Your task to perform on an android device: open sync settings in chrome Image 0: 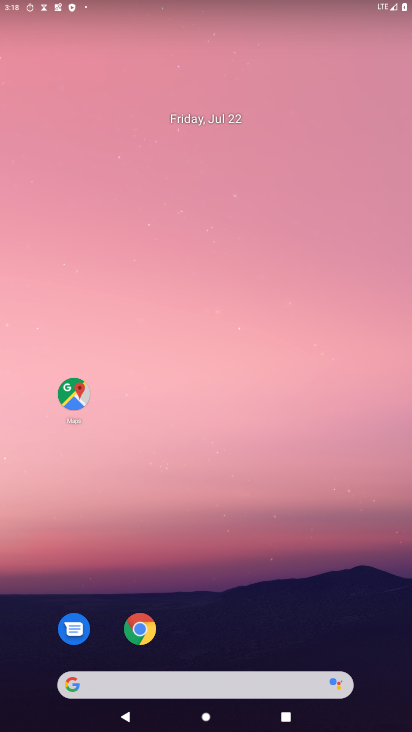
Step 0: drag from (258, 605) to (243, 36)
Your task to perform on an android device: open sync settings in chrome Image 1: 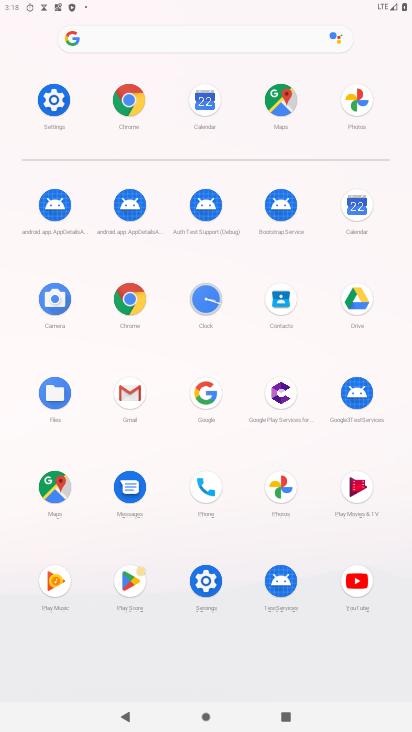
Step 1: click (133, 304)
Your task to perform on an android device: open sync settings in chrome Image 2: 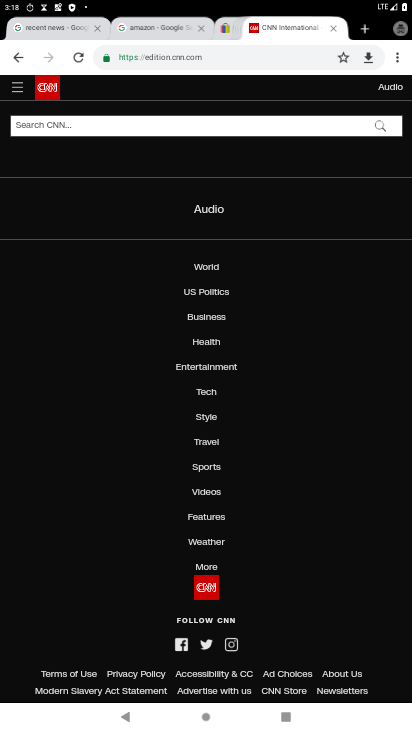
Step 2: drag from (399, 59) to (287, 384)
Your task to perform on an android device: open sync settings in chrome Image 3: 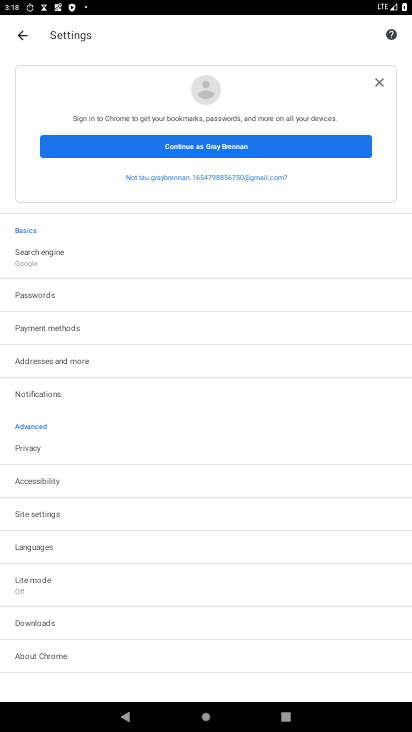
Step 3: click (74, 515)
Your task to perform on an android device: open sync settings in chrome Image 4: 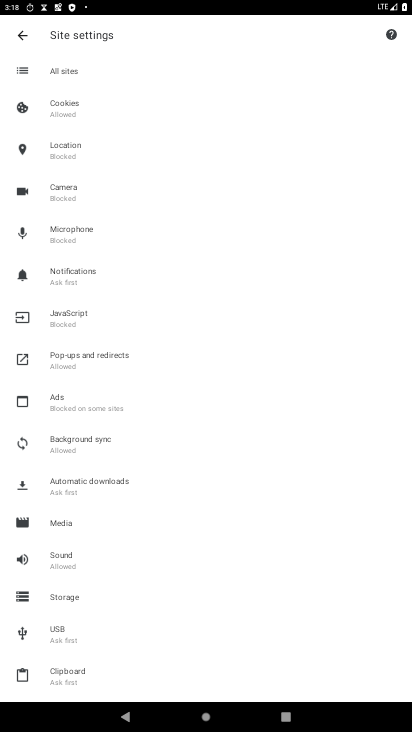
Step 4: click (90, 449)
Your task to perform on an android device: open sync settings in chrome Image 5: 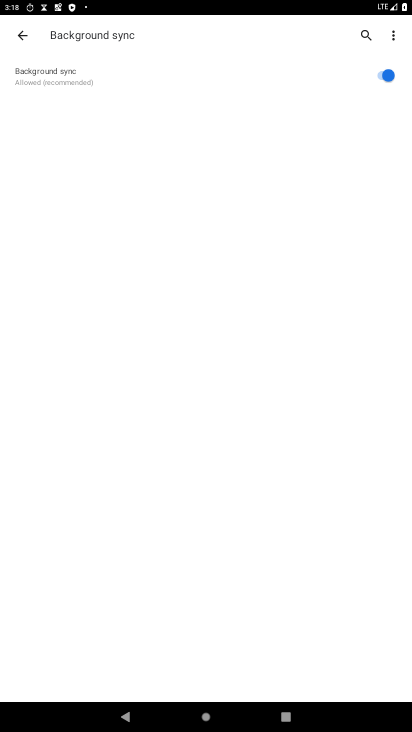
Step 5: task complete